Your task to perform on an android device: turn on sleep mode Image 0: 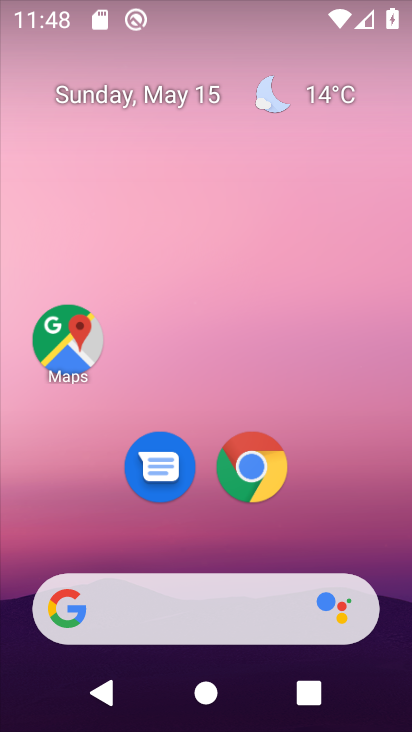
Step 0: press home button
Your task to perform on an android device: turn on sleep mode Image 1: 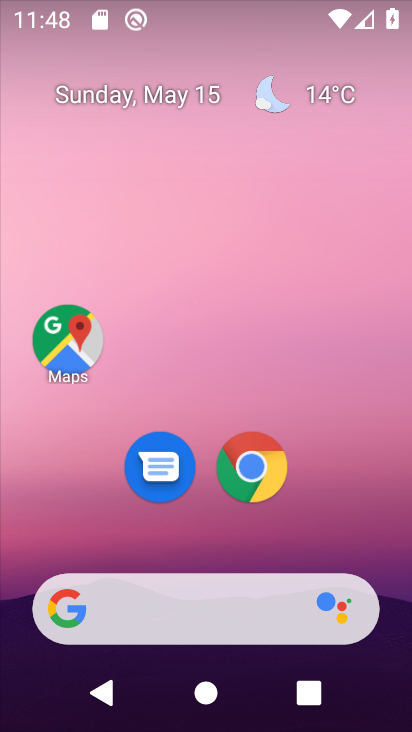
Step 1: drag from (211, 536) to (266, 26)
Your task to perform on an android device: turn on sleep mode Image 2: 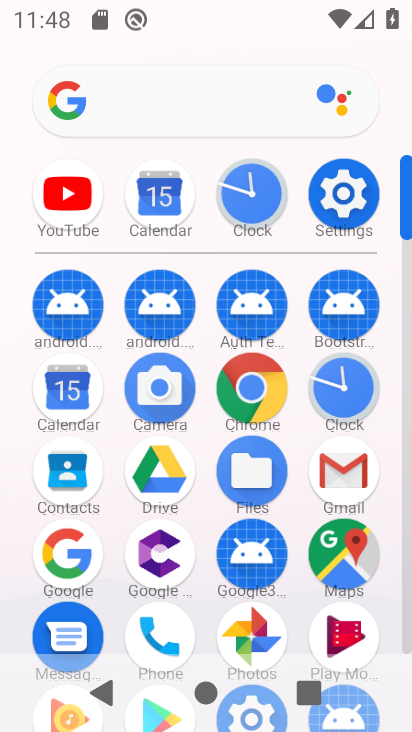
Step 2: click (338, 187)
Your task to perform on an android device: turn on sleep mode Image 3: 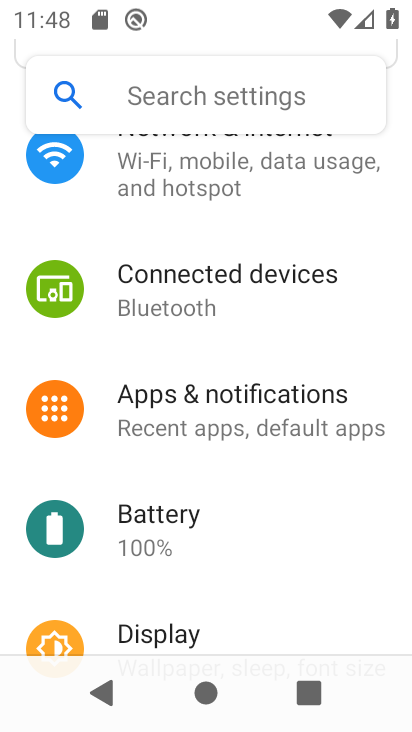
Step 3: click (202, 629)
Your task to perform on an android device: turn on sleep mode Image 4: 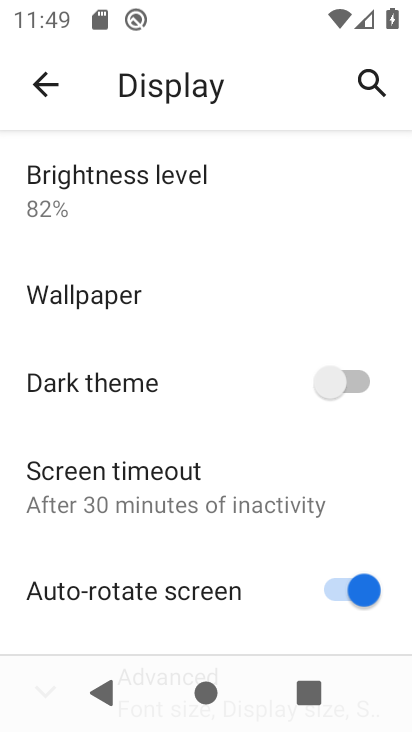
Step 4: task complete